Your task to perform on an android device: check out phone information Image 0: 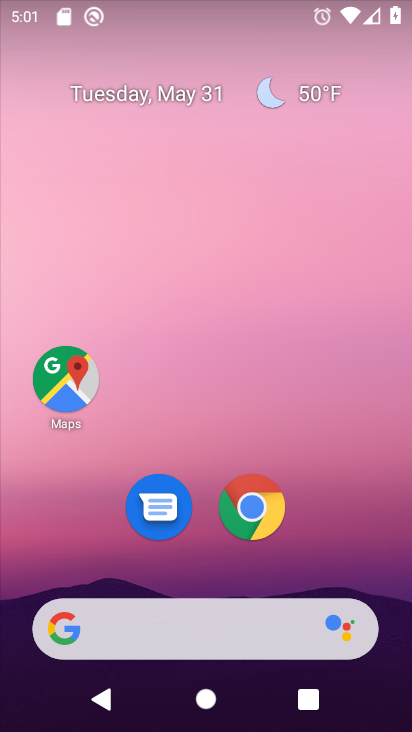
Step 0: drag from (223, 432) to (225, 44)
Your task to perform on an android device: check out phone information Image 1: 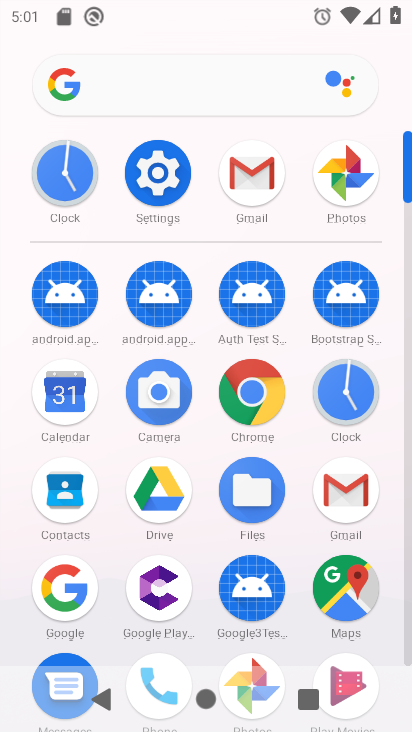
Step 1: drag from (194, 450) to (180, 225)
Your task to perform on an android device: check out phone information Image 2: 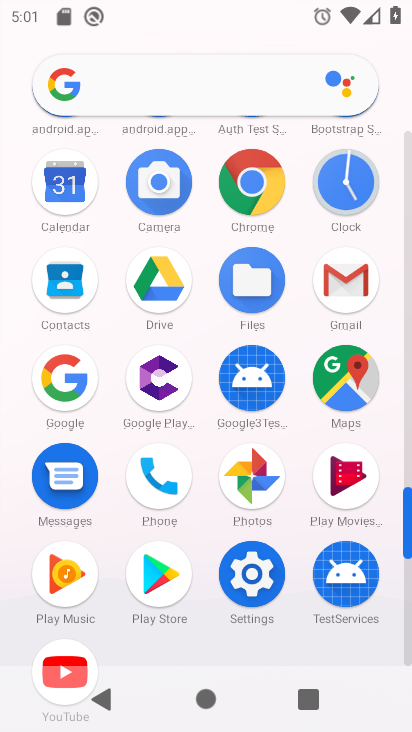
Step 2: click (166, 472)
Your task to perform on an android device: check out phone information Image 3: 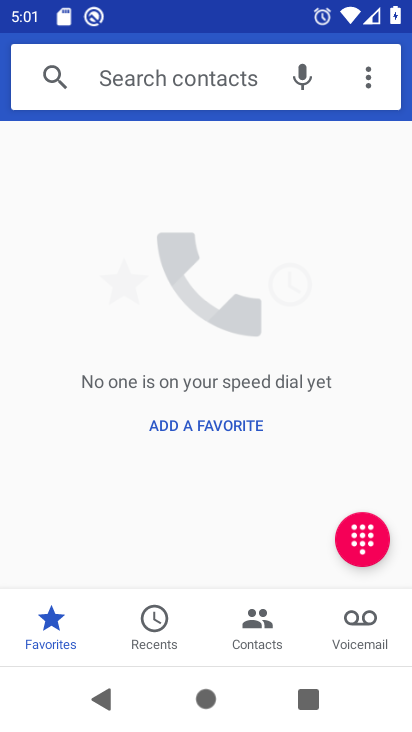
Step 3: click (369, 78)
Your task to perform on an android device: check out phone information Image 4: 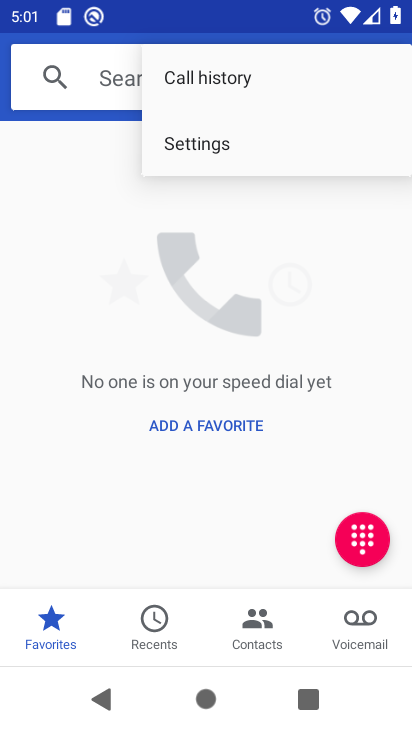
Step 4: click (257, 148)
Your task to perform on an android device: check out phone information Image 5: 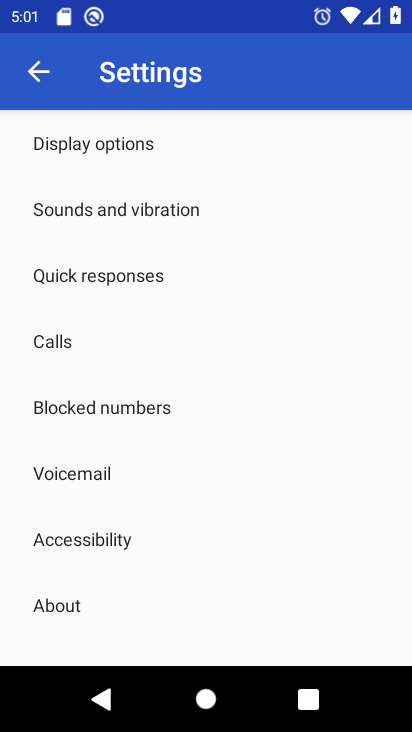
Step 5: task complete